Your task to perform on an android device: turn on the 12-hour format for clock Image 0: 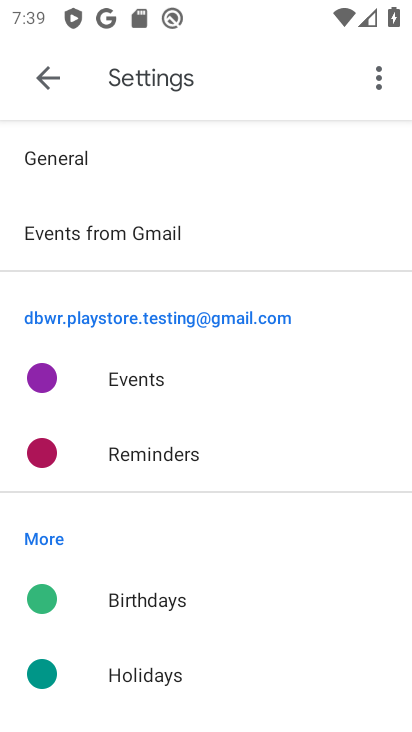
Step 0: press home button
Your task to perform on an android device: turn on the 12-hour format for clock Image 1: 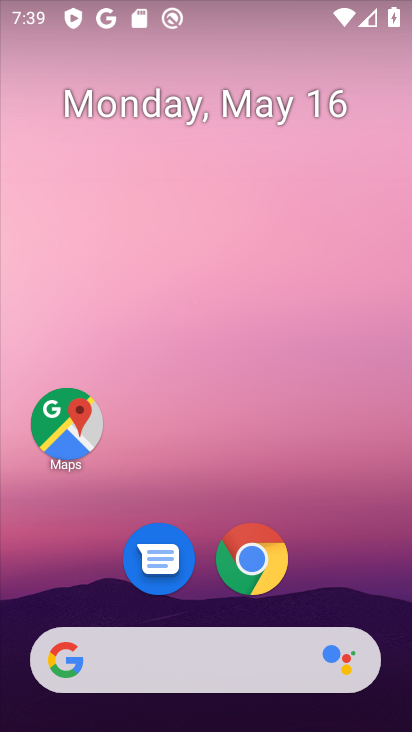
Step 1: drag from (375, 555) to (342, 170)
Your task to perform on an android device: turn on the 12-hour format for clock Image 2: 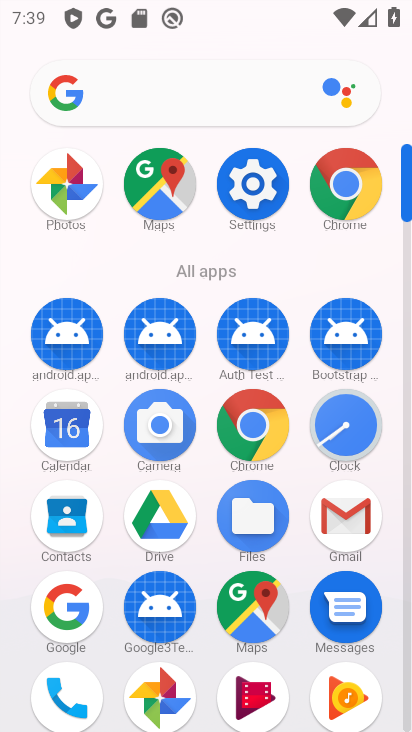
Step 2: click (345, 426)
Your task to perform on an android device: turn on the 12-hour format for clock Image 3: 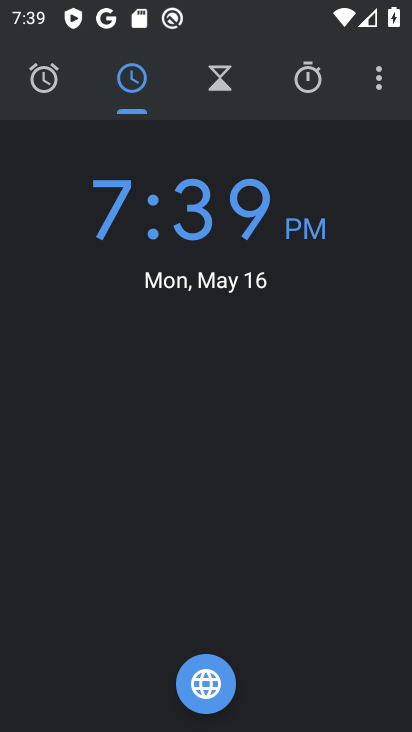
Step 3: click (377, 87)
Your task to perform on an android device: turn on the 12-hour format for clock Image 4: 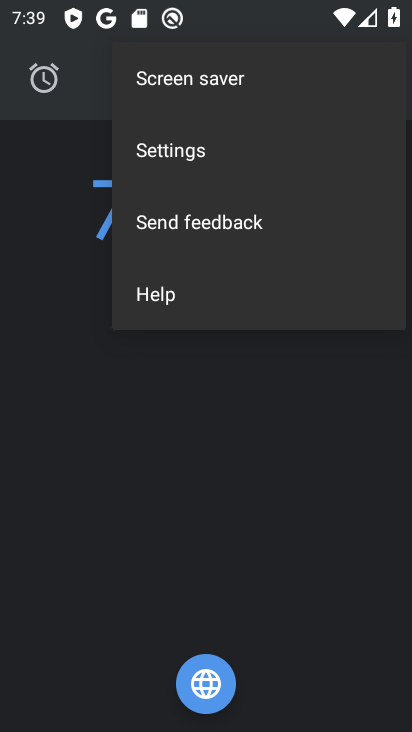
Step 4: click (185, 158)
Your task to perform on an android device: turn on the 12-hour format for clock Image 5: 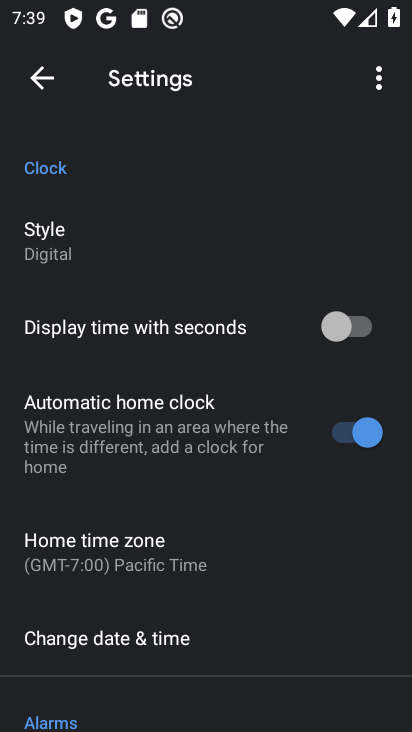
Step 5: click (206, 650)
Your task to perform on an android device: turn on the 12-hour format for clock Image 6: 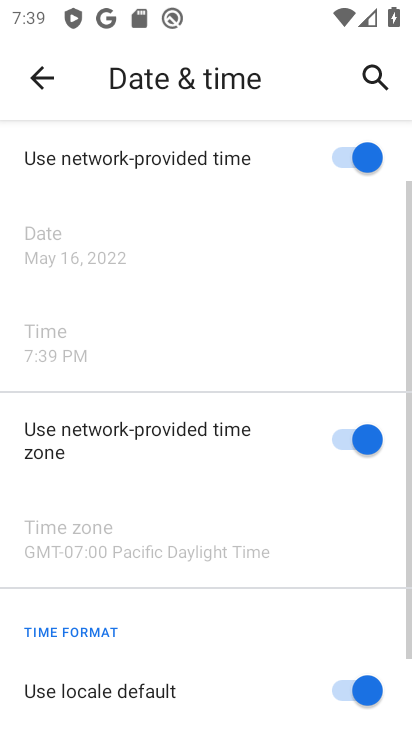
Step 6: task complete